Your task to perform on an android device: Open Google Chrome and click the shortcut for Amazon.com Image 0: 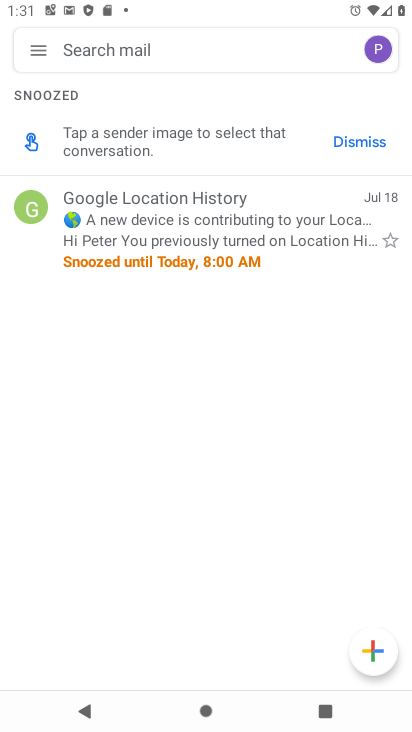
Step 0: press home button
Your task to perform on an android device: Open Google Chrome and click the shortcut for Amazon.com Image 1: 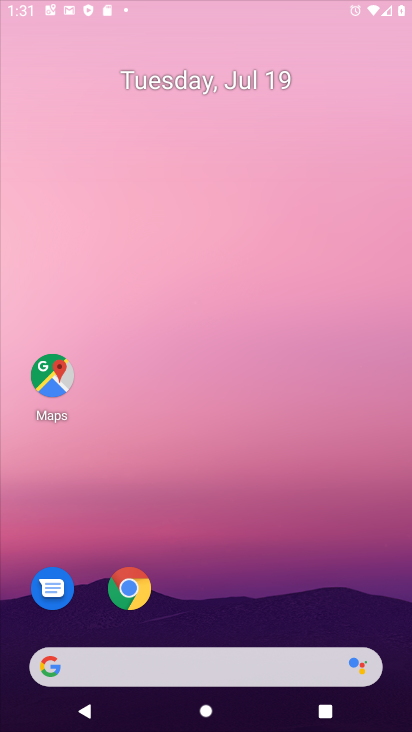
Step 1: drag from (383, 642) to (325, 132)
Your task to perform on an android device: Open Google Chrome and click the shortcut for Amazon.com Image 2: 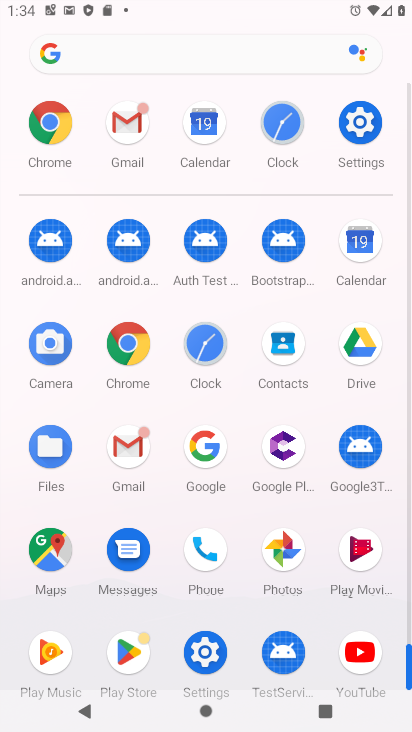
Step 2: click (121, 347)
Your task to perform on an android device: Open Google Chrome and click the shortcut for Amazon.com Image 3: 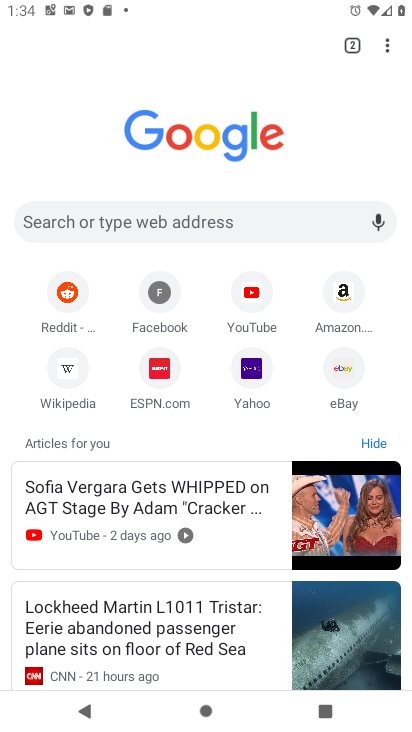
Step 3: click (347, 299)
Your task to perform on an android device: Open Google Chrome and click the shortcut for Amazon.com Image 4: 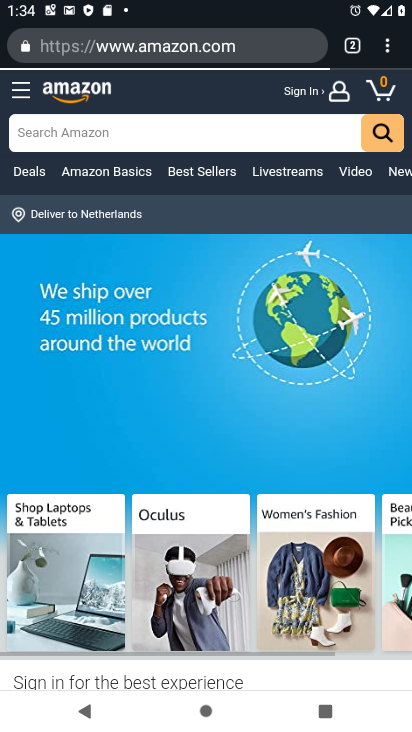
Step 4: task complete